Your task to perform on an android device: What is the recent news? Image 0: 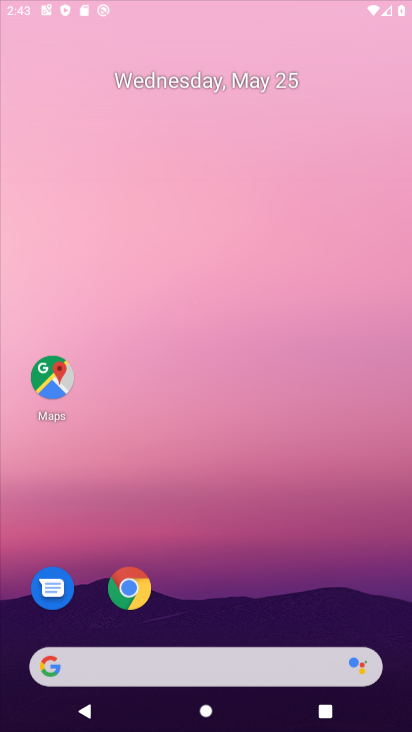
Step 0: press home button
Your task to perform on an android device: What is the recent news? Image 1: 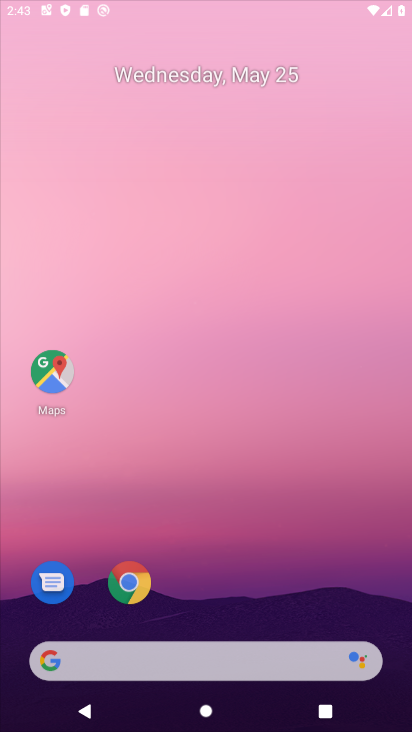
Step 1: drag from (265, 648) to (357, 118)
Your task to perform on an android device: What is the recent news? Image 2: 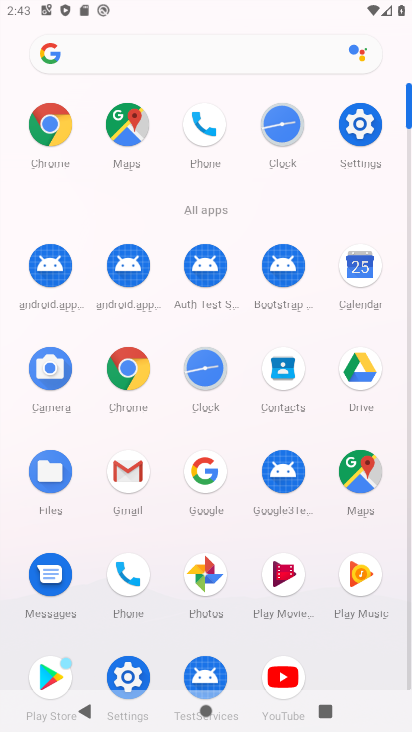
Step 2: click (153, 55)
Your task to perform on an android device: What is the recent news? Image 3: 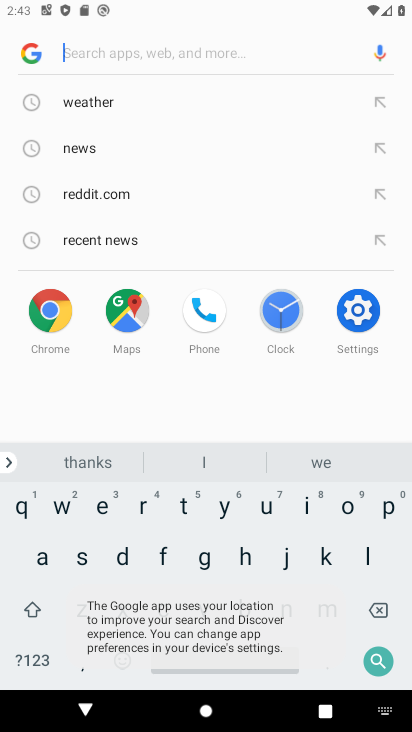
Step 3: click (134, 503)
Your task to perform on an android device: What is the recent news? Image 4: 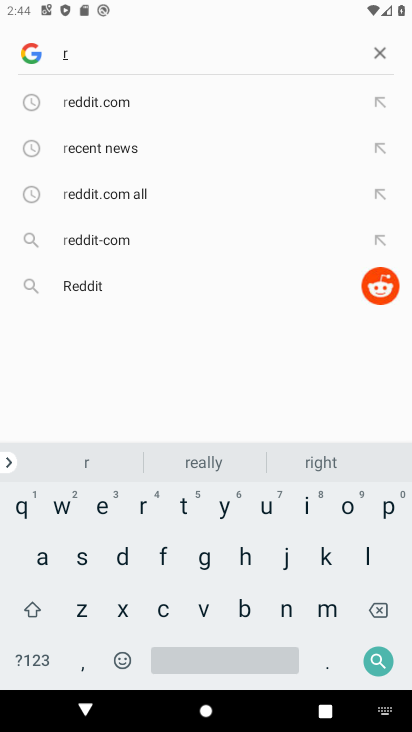
Step 4: click (141, 144)
Your task to perform on an android device: What is the recent news? Image 5: 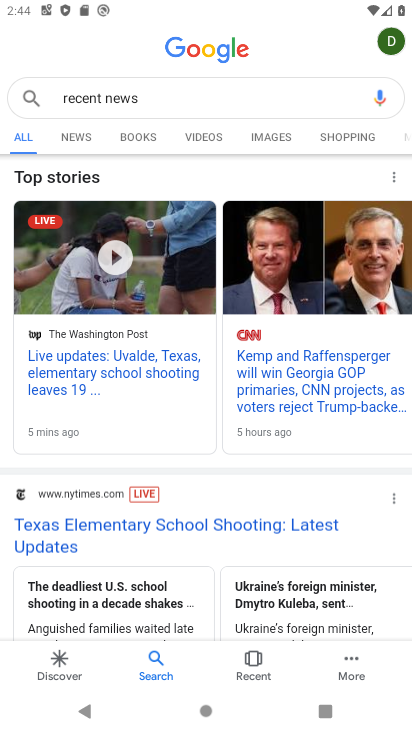
Step 5: task complete